Your task to perform on an android device: Toggle the flashlight Image 0: 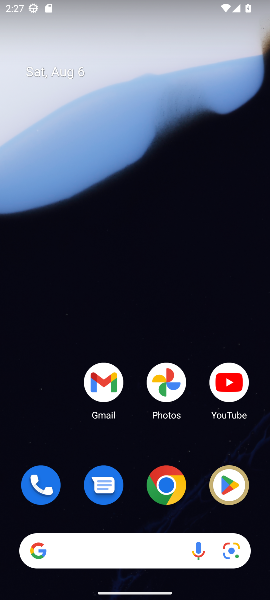
Step 0: press home button
Your task to perform on an android device: Toggle the flashlight Image 1: 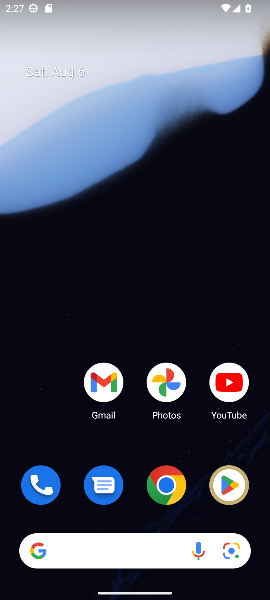
Step 1: press home button
Your task to perform on an android device: Toggle the flashlight Image 2: 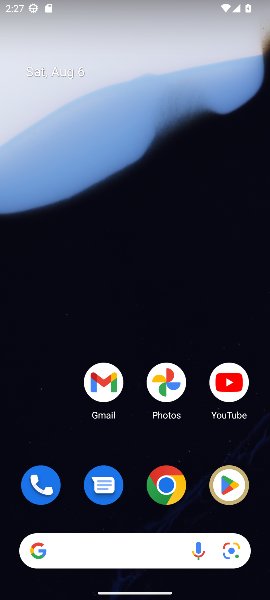
Step 2: press home button
Your task to perform on an android device: Toggle the flashlight Image 3: 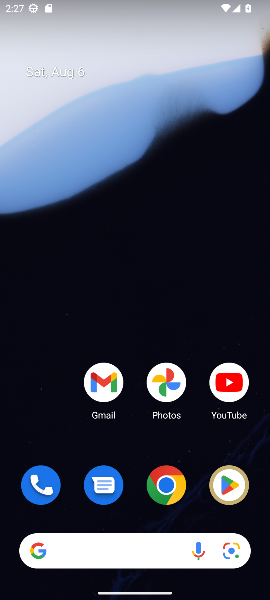
Step 3: drag from (136, 438) to (165, 7)
Your task to perform on an android device: Toggle the flashlight Image 4: 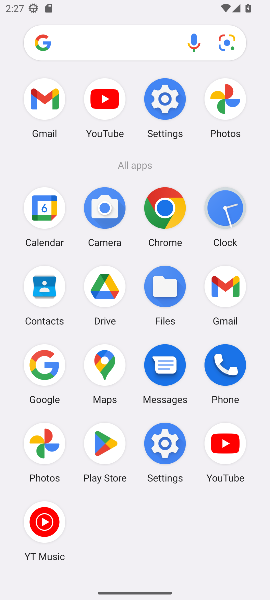
Step 4: click (163, 92)
Your task to perform on an android device: Toggle the flashlight Image 5: 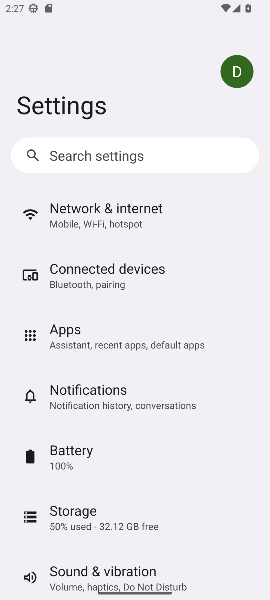
Step 5: click (108, 153)
Your task to perform on an android device: Toggle the flashlight Image 6: 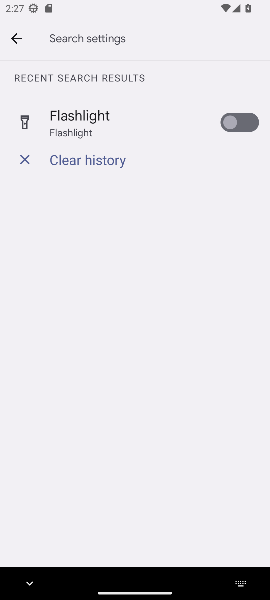
Step 6: click (104, 123)
Your task to perform on an android device: Toggle the flashlight Image 7: 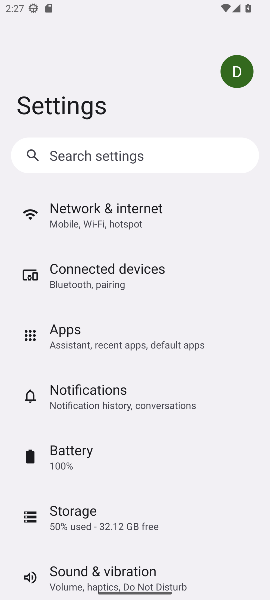
Step 7: task complete